Your task to perform on an android device: turn off improve location accuracy Image 0: 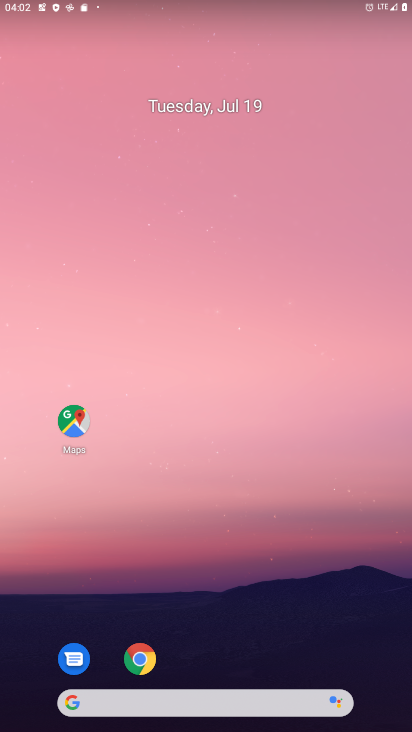
Step 0: press home button
Your task to perform on an android device: turn off improve location accuracy Image 1: 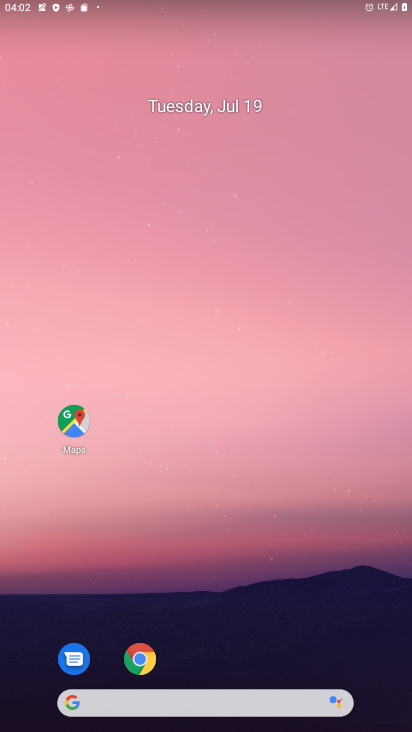
Step 1: drag from (248, 666) to (319, 27)
Your task to perform on an android device: turn off improve location accuracy Image 2: 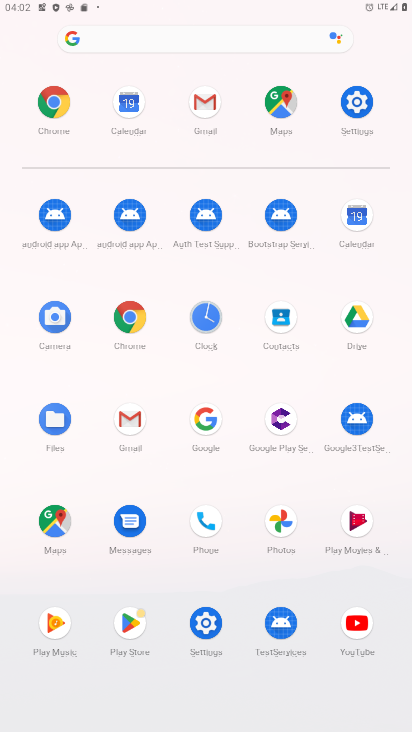
Step 2: click (209, 621)
Your task to perform on an android device: turn off improve location accuracy Image 3: 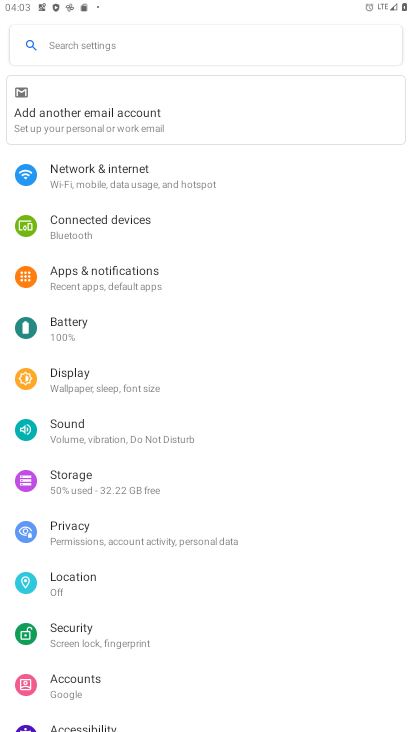
Step 3: click (107, 574)
Your task to perform on an android device: turn off improve location accuracy Image 4: 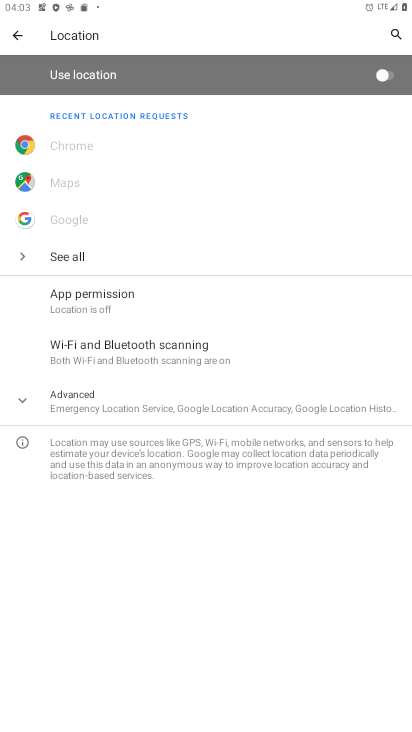
Step 4: click (142, 392)
Your task to perform on an android device: turn off improve location accuracy Image 5: 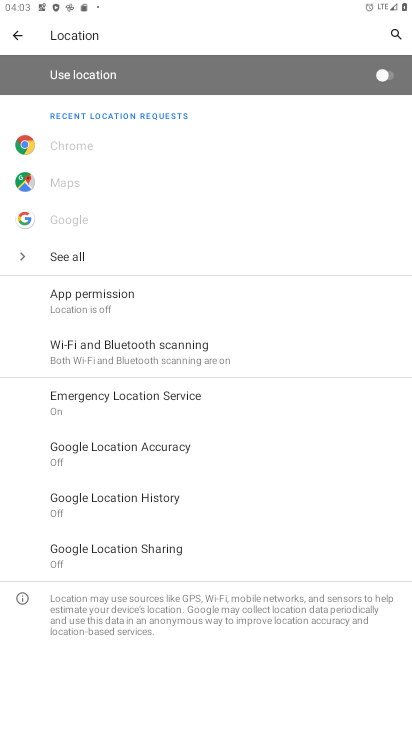
Step 5: click (111, 464)
Your task to perform on an android device: turn off improve location accuracy Image 6: 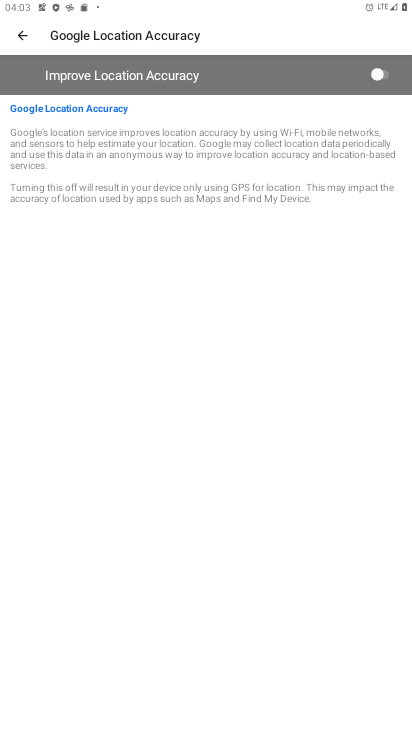
Step 6: task complete